Your task to perform on an android device: Show me popular videos on Youtube Image 0: 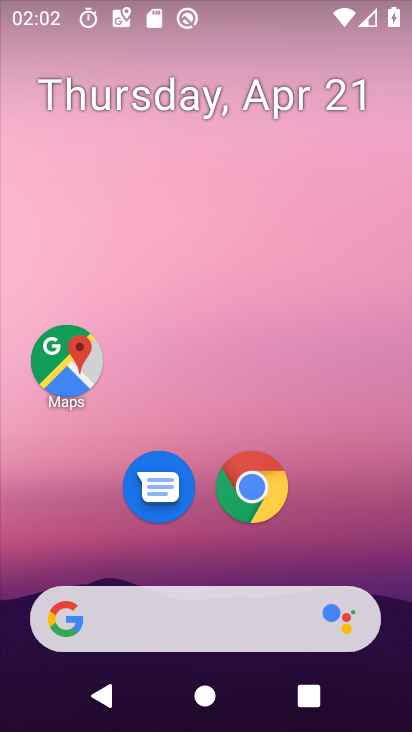
Step 0: drag from (206, 542) to (185, 260)
Your task to perform on an android device: Show me popular videos on Youtube Image 1: 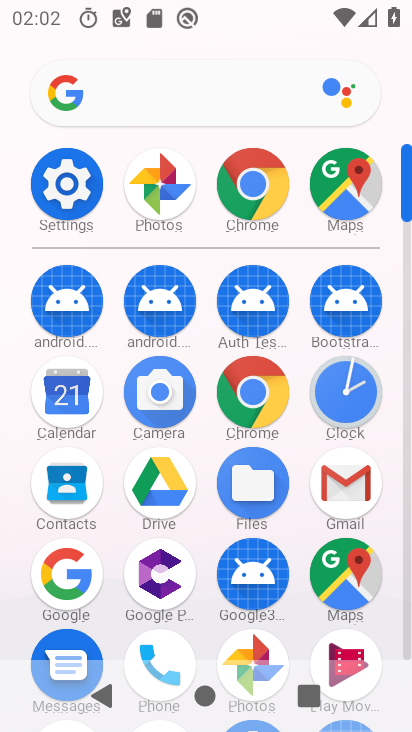
Step 1: drag from (296, 632) to (287, 266)
Your task to perform on an android device: Show me popular videos on Youtube Image 2: 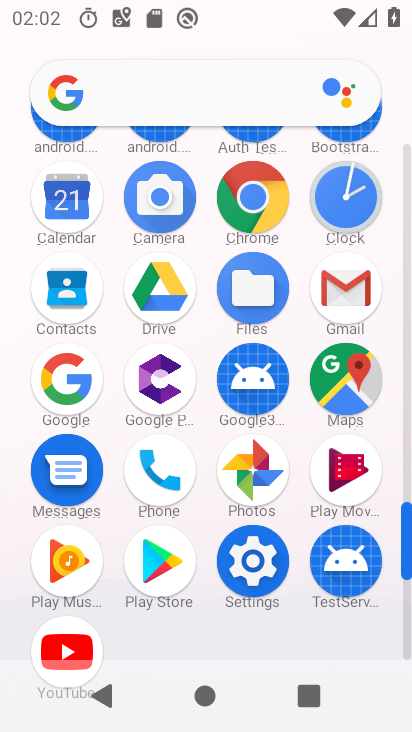
Step 2: click (62, 642)
Your task to perform on an android device: Show me popular videos on Youtube Image 3: 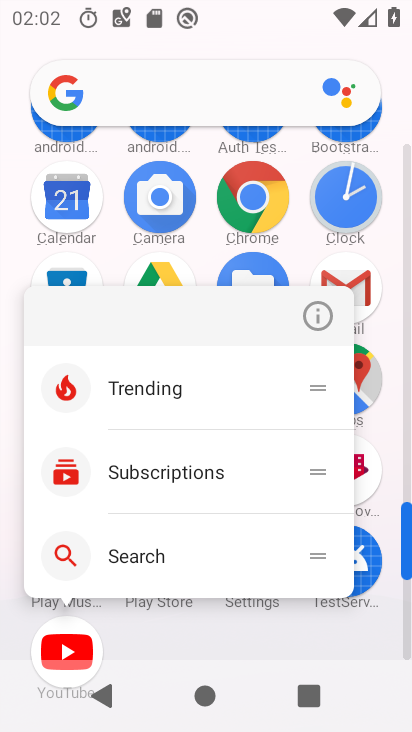
Step 3: click (323, 322)
Your task to perform on an android device: Show me popular videos on Youtube Image 4: 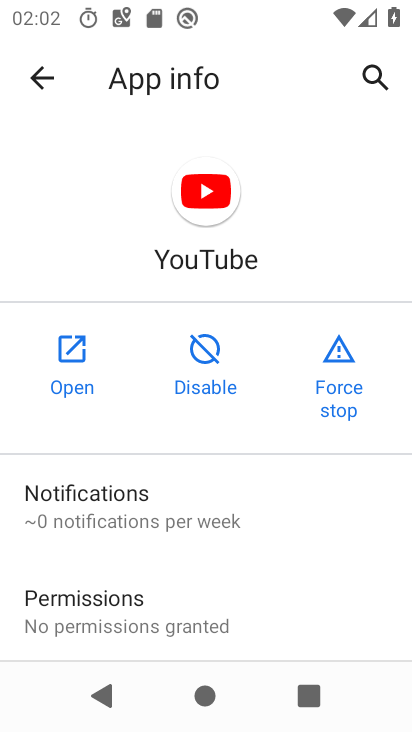
Step 4: click (76, 362)
Your task to perform on an android device: Show me popular videos on Youtube Image 5: 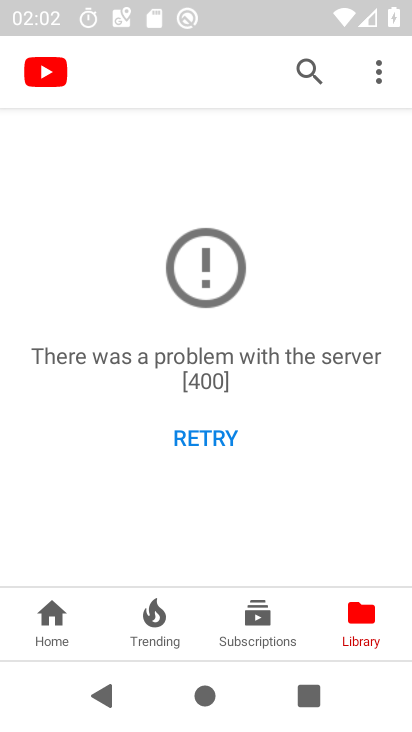
Step 5: click (72, 628)
Your task to perform on an android device: Show me popular videos on Youtube Image 6: 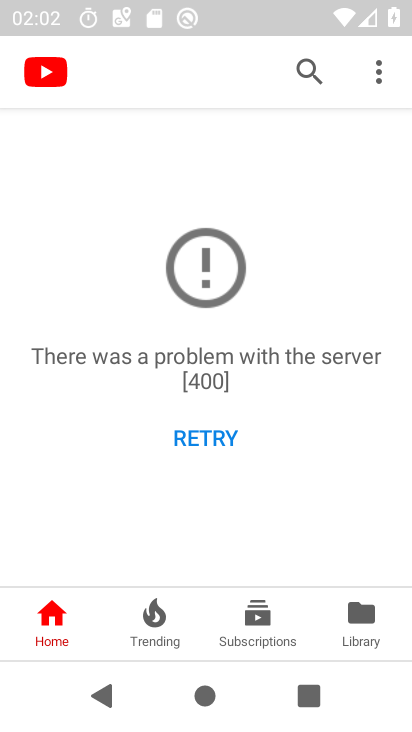
Step 6: click (163, 611)
Your task to perform on an android device: Show me popular videos on Youtube Image 7: 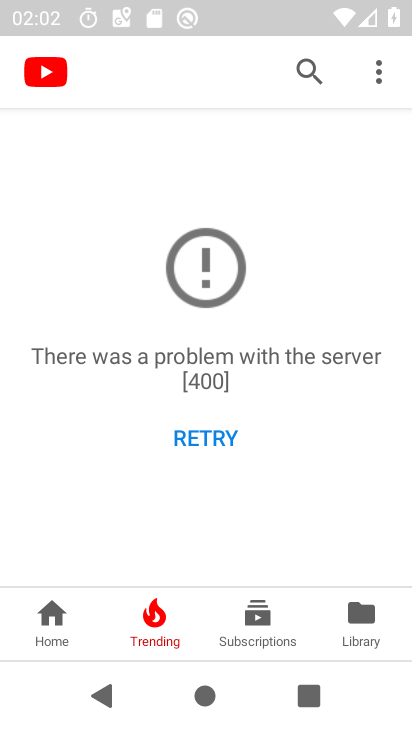
Step 7: click (204, 426)
Your task to perform on an android device: Show me popular videos on Youtube Image 8: 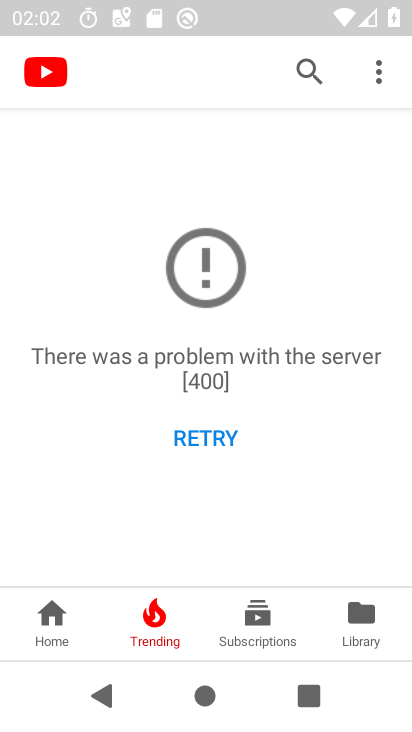
Step 8: task complete